Your task to perform on an android device: turn pop-ups on in chrome Image 0: 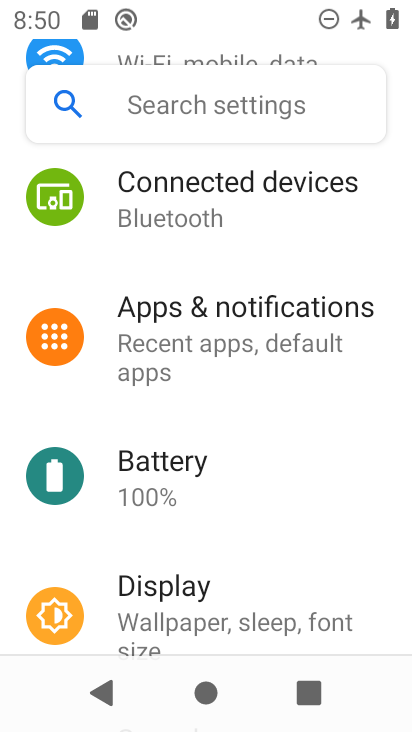
Step 0: press home button
Your task to perform on an android device: turn pop-ups on in chrome Image 1: 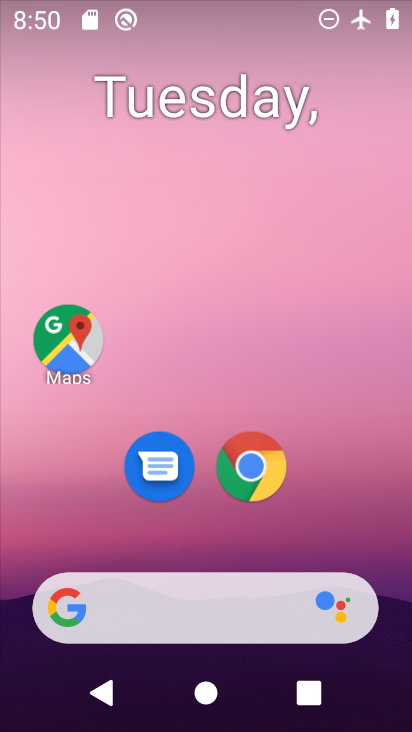
Step 1: click (291, 434)
Your task to perform on an android device: turn pop-ups on in chrome Image 2: 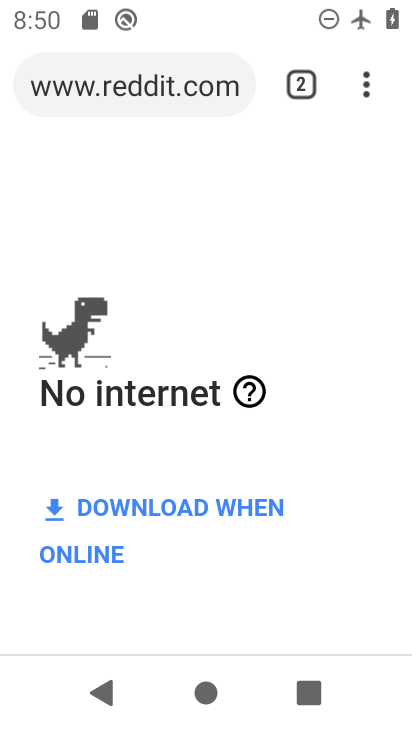
Step 2: click (365, 94)
Your task to perform on an android device: turn pop-ups on in chrome Image 3: 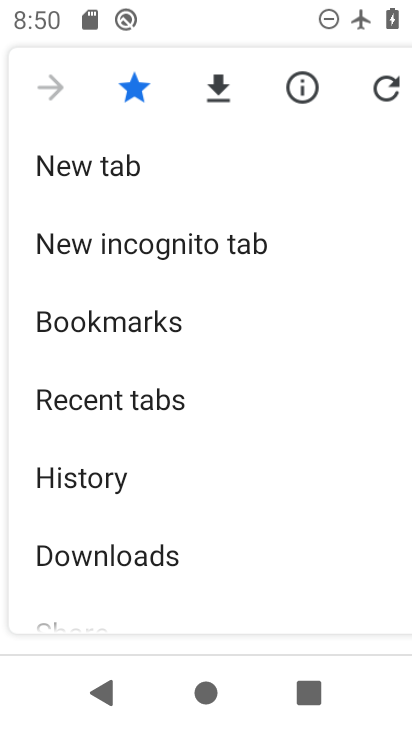
Step 3: drag from (135, 497) to (167, 253)
Your task to perform on an android device: turn pop-ups on in chrome Image 4: 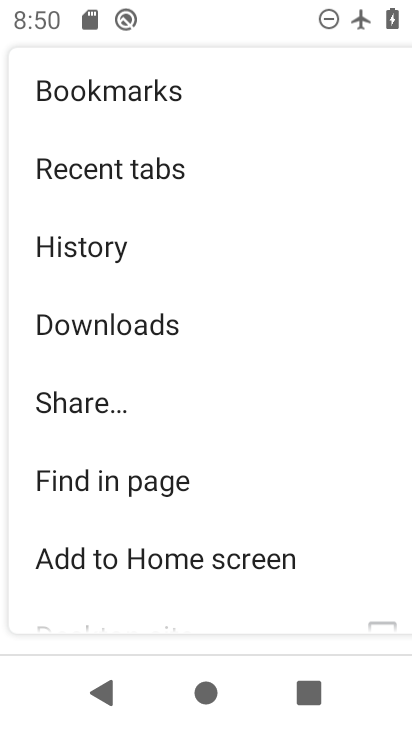
Step 4: drag from (128, 500) to (153, 367)
Your task to perform on an android device: turn pop-ups on in chrome Image 5: 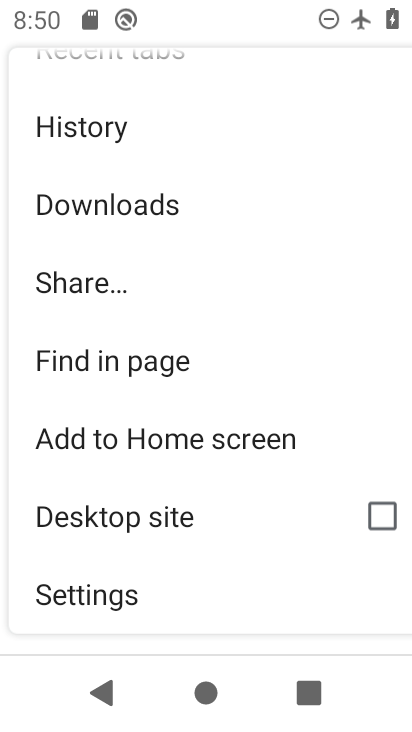
Step 5: click (125, 593)
Your task to perform on an android device: turn pop-ups on in chrome Image 6: 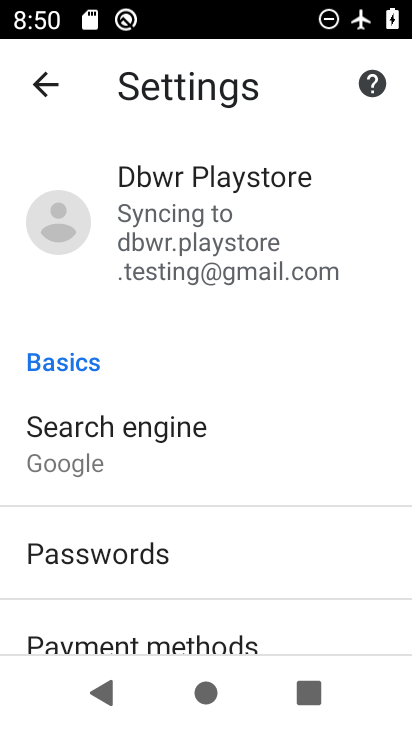
Step 6: drag from (137, 543) to (181, 360)
Your task to perform on an android device: turn pop-ups on in chrome Image 7: 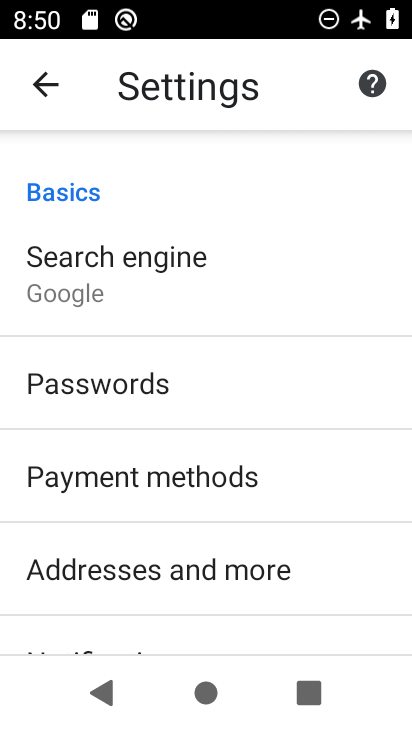
Step 7: drag from (136, 579) to (196, 359)
Your task to perform on an android device: turn pop-ups on in chrome Image 8: 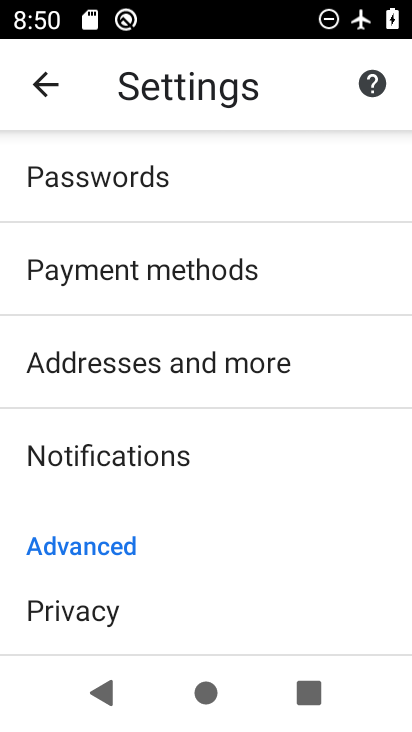
Step 8: drag from (162, 535) to (205, 125)
Your task to perform on an android device: turn pop-ups on in chrome Image 9: 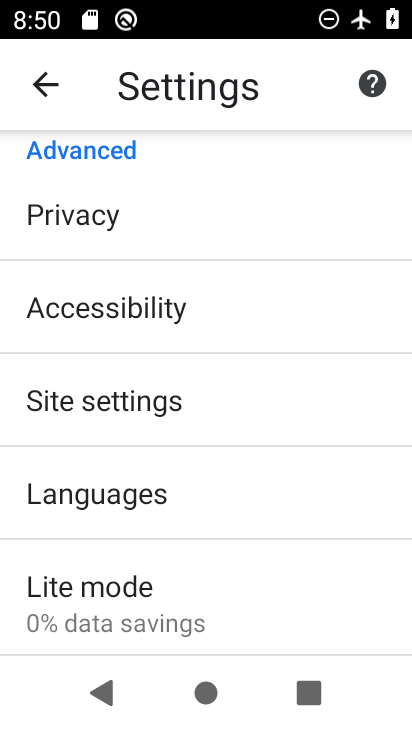
Step 9: click (140, 407)
Your task to perform on an android device: turn pop-ups on in chrome Image 10: 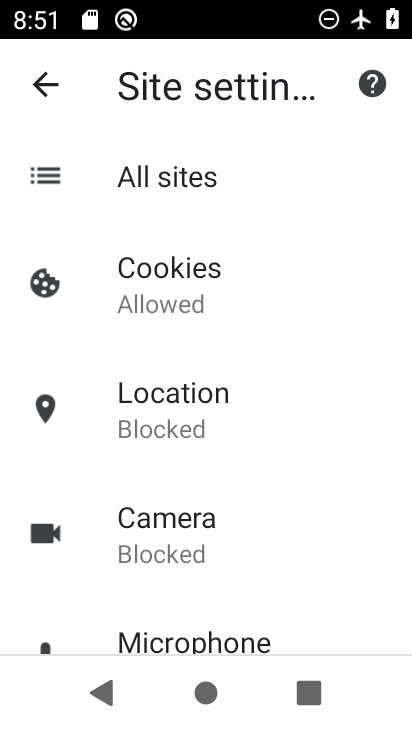
Step 10: drag from (201, 525) to (225, 320)
Your task to perform on an android device: turn pop-ups on in chrome Image 11: 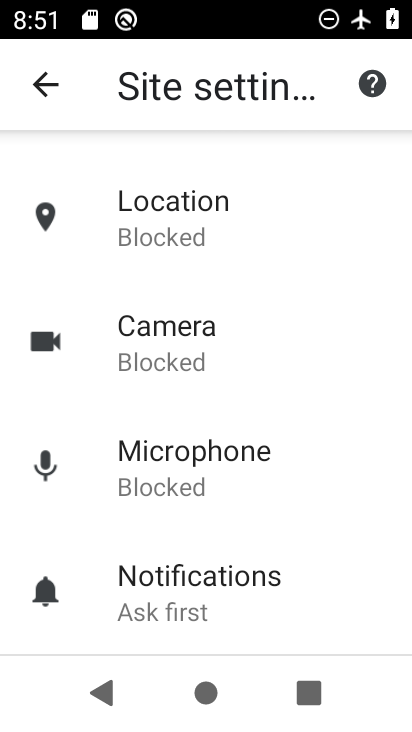
Step 11: drag from (222, 532) to (277, 208)
Your task to perform on an android device: turn pop-ups on in chrome Image 12: 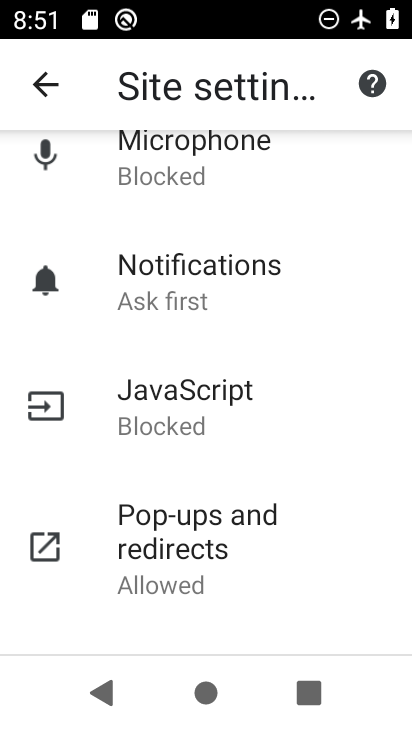
Step 12: click (194, 539)
Your task to perform on an android device: turn pop-ups on in chrome Image 13: 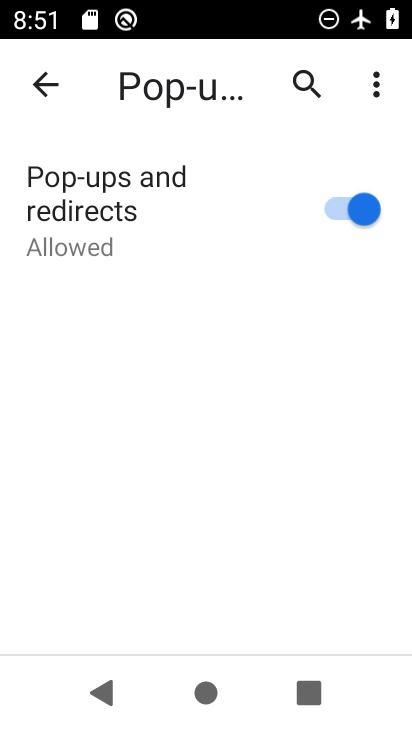
Step 13: task complete